Your task to perform on an android device: Open Google Maps Image 0: 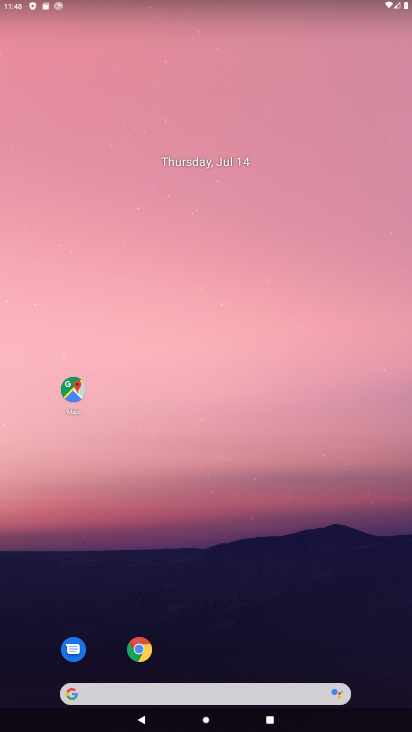
Step 0: drag from (203, 666) to (224, 250)
Your task to perform on an android device: Open Google Maps Image 1: 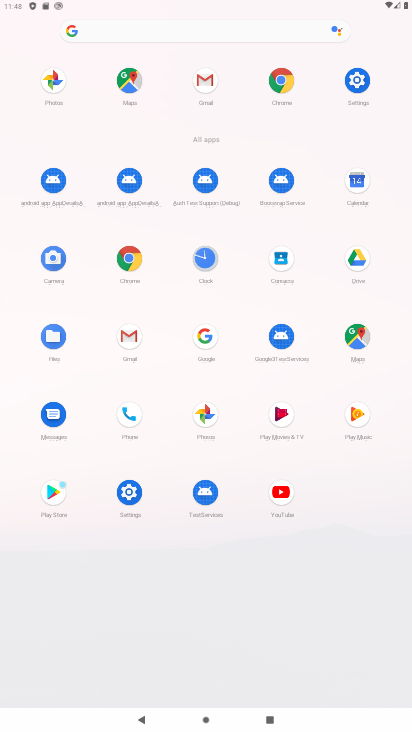
Step 1: click (353, 340)
Your task to perform on an android device: Open Google Maps Image 2: 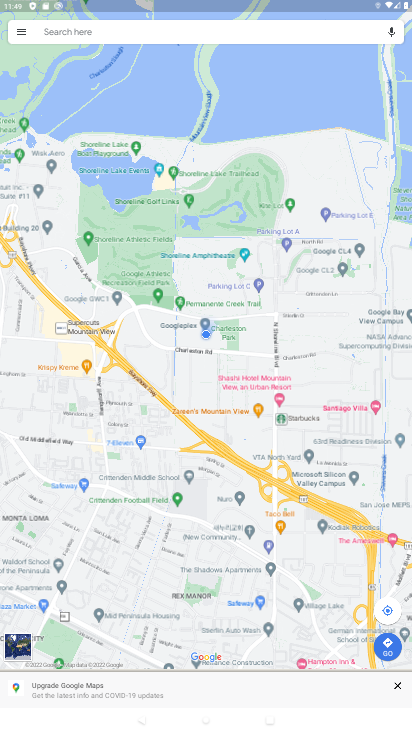
Step 2: task complete